Your task to perform on an android device: turn on the 12-hour format for clock Image 0: 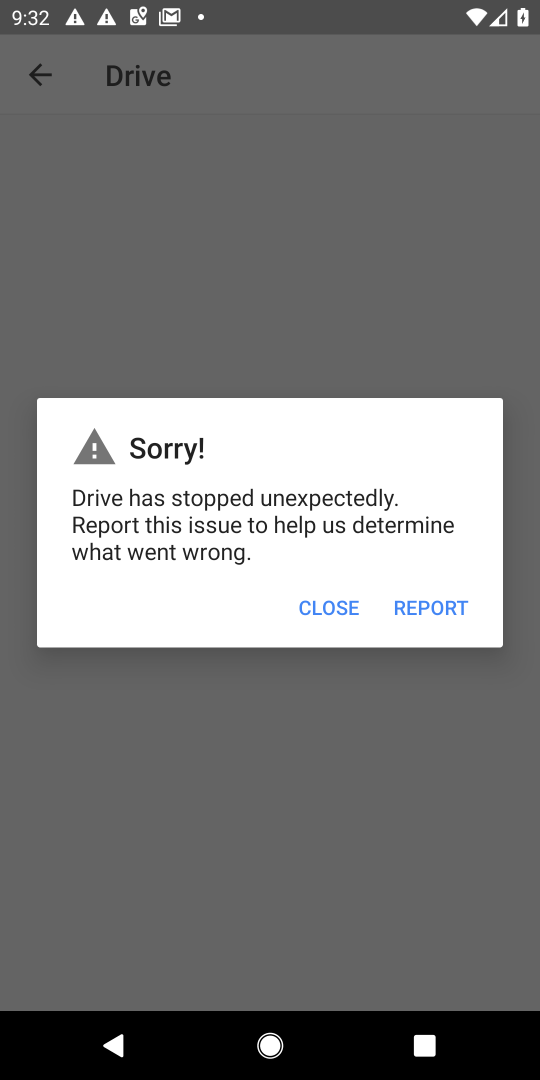
Step 0: press home button
Your task to perform on an android device: turn on the 12-hour format for clock Image 1: 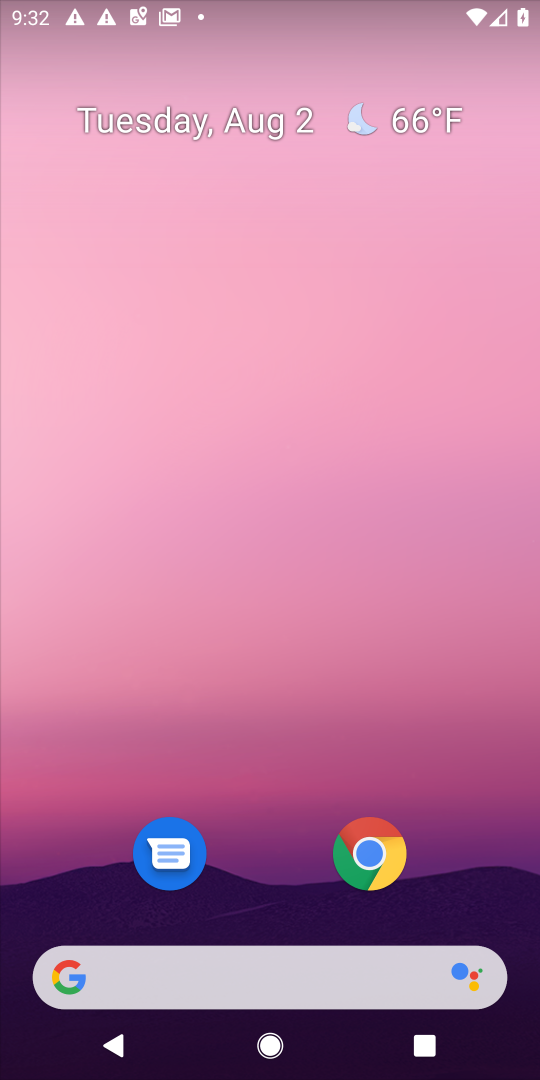
Step 1: drag from (317, 849) to (473, 442)
Your task to perform on an android device: turn on the 12-hour format for clock Image 2: 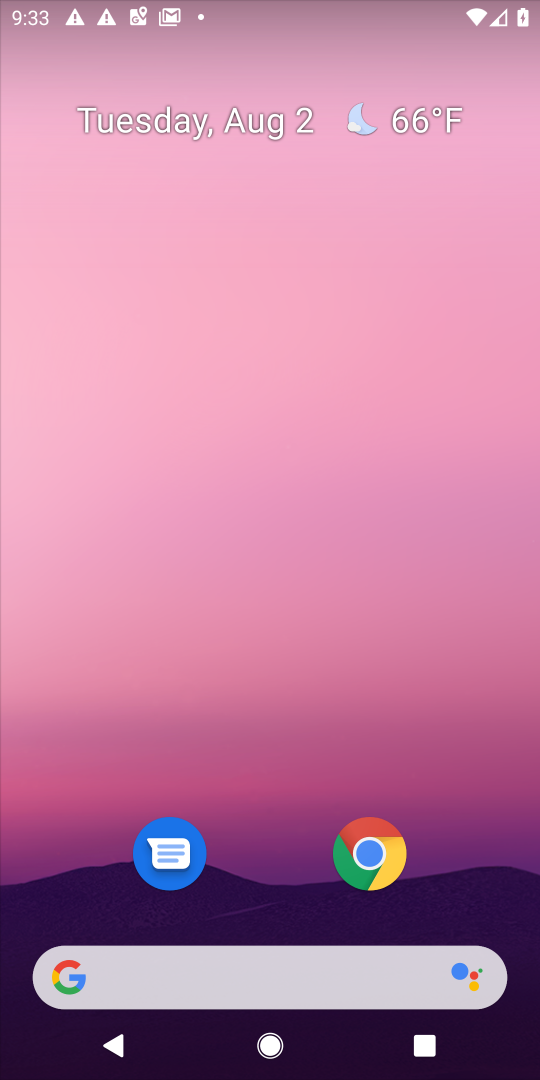
Step 2: drag from (268, 824) to (344, 17)
Your task to perform on an android device: turn on the 12-hour format for clock Image 3: 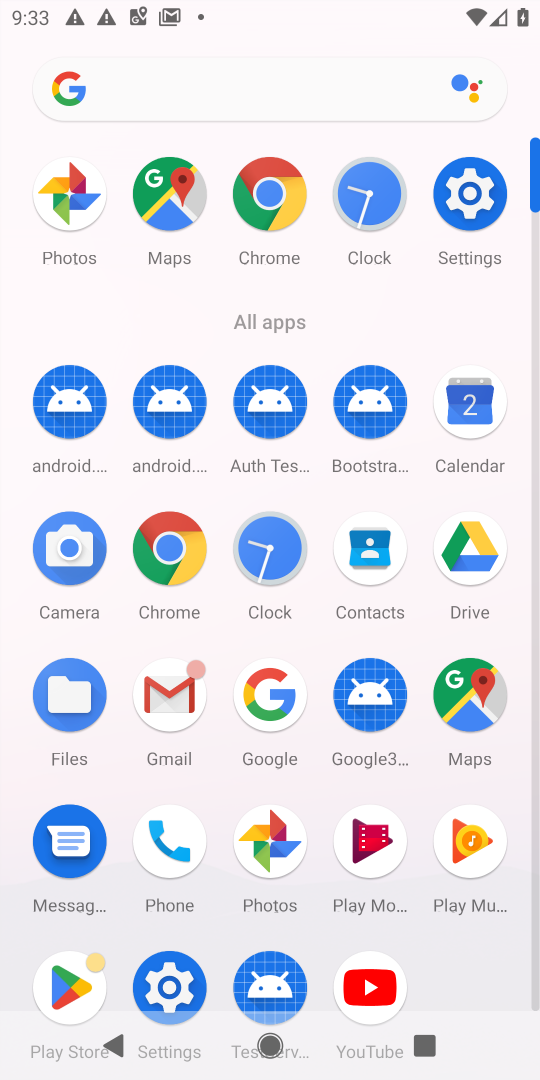
Step 3: click (287, 544)
Your task to perform on an android device: turn on the 12-hour format for clock Image 4: 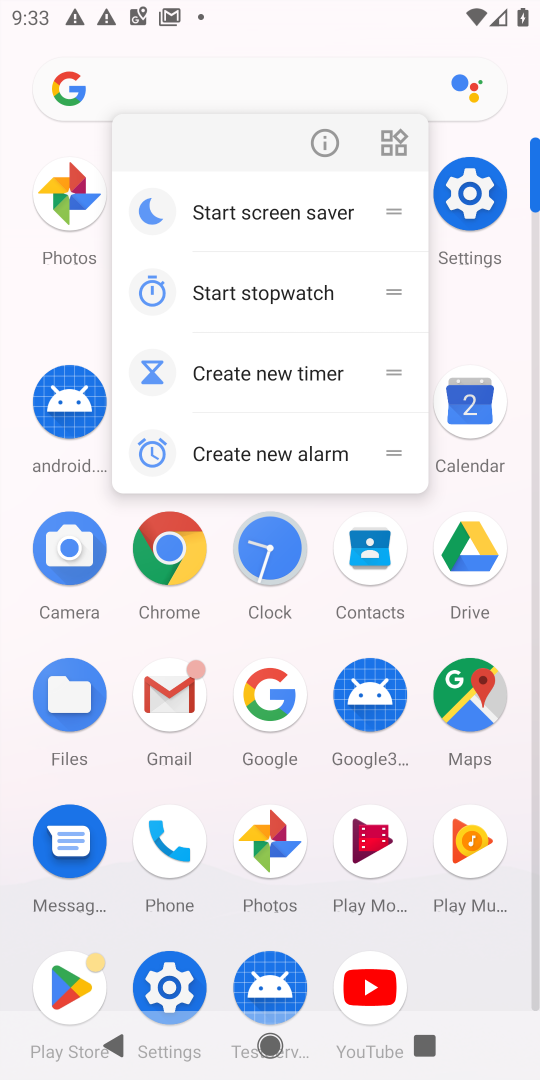
Step 4: click (264, 570)
Your task to perform on an android device: turn on the 12-hour format for clock Image 5: 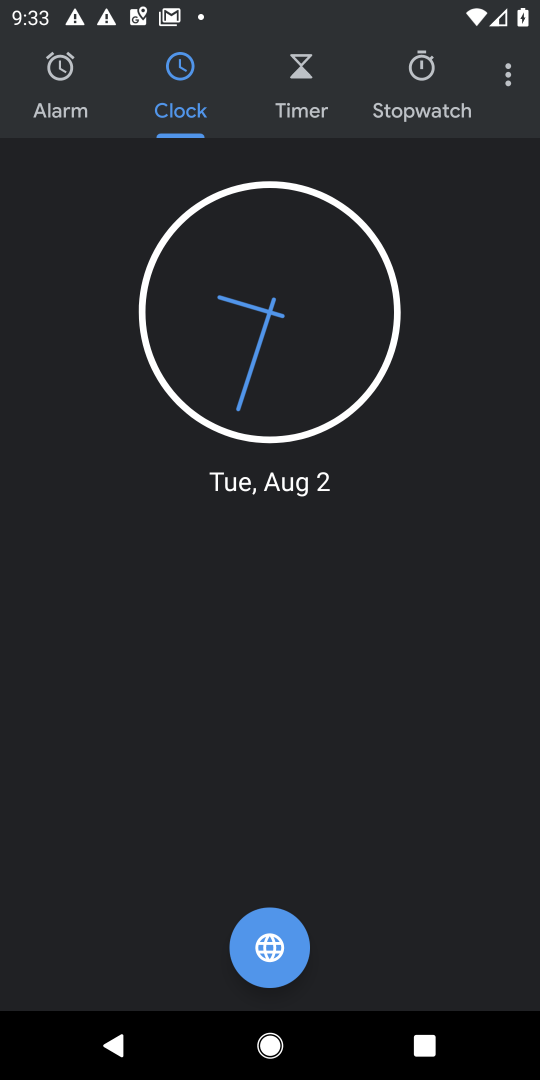
Step 5: drag from (502, 89) to (389, 144)
Your task to perform on an android device: turn on the 12-hour format for clock Image 6: 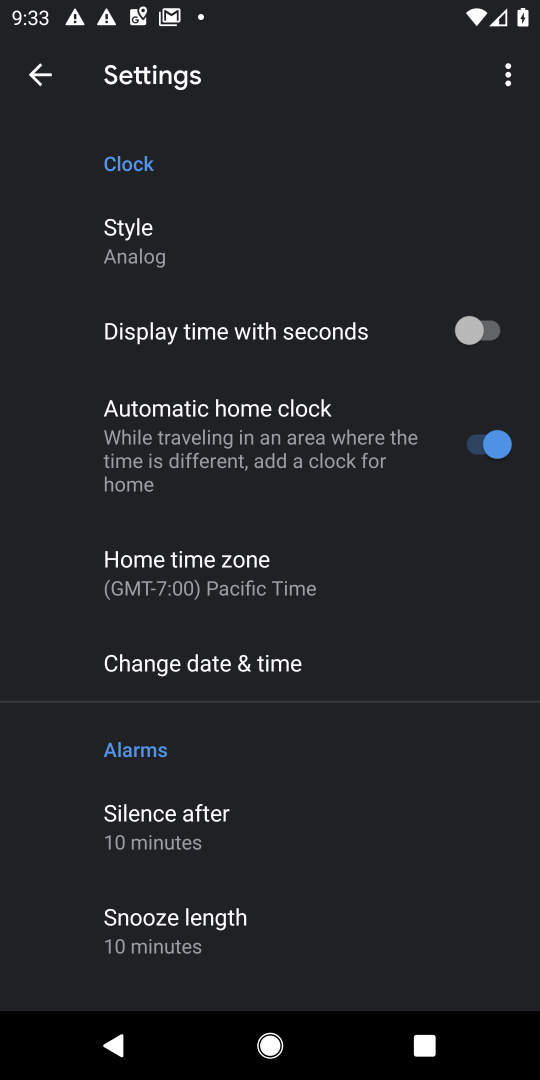
Step 6: click (237, 655)
Your task to perform on an android device: turn on the 12-hour format for clock Image 7: 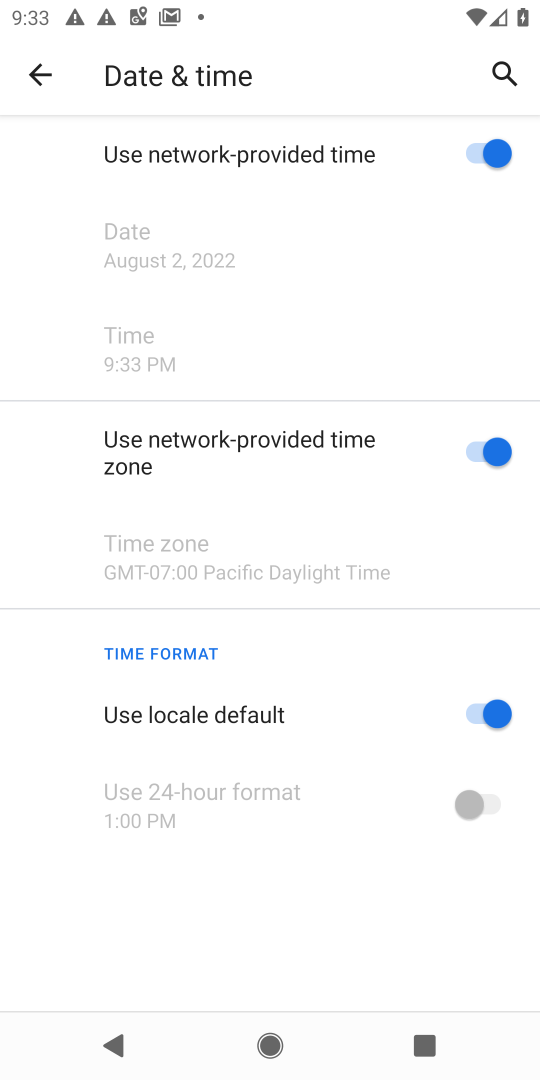
Step 7: task complete